Your task to perform on an android device: Open Google Maps Image 0: 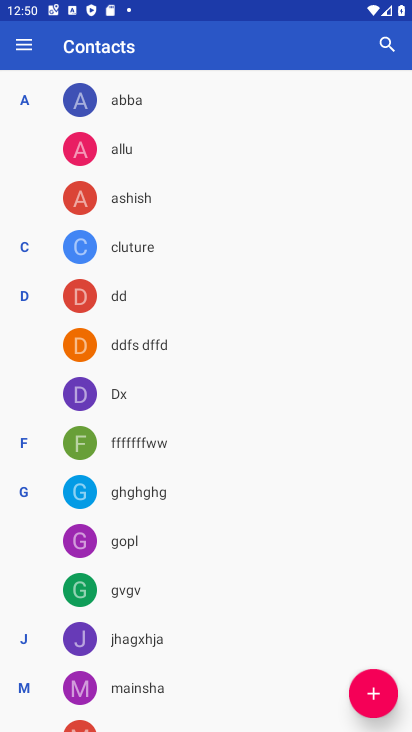
Step 0: press home button
Your task to perform on an android device: Open Google Maps Image 1: 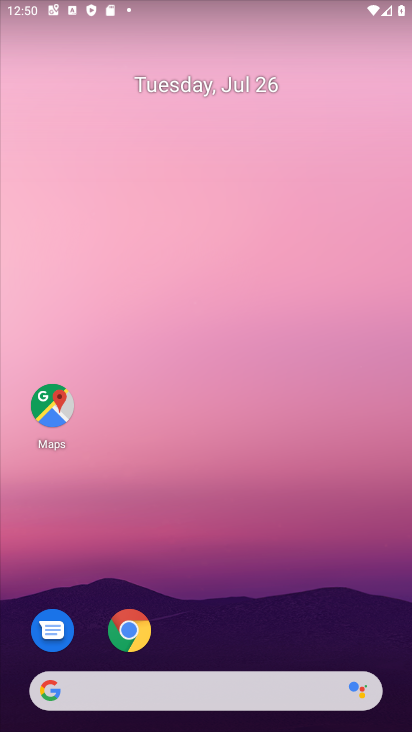
Step 1: click (54, 401)
Your task to perform on an android device: Open Google Maps Image 2: 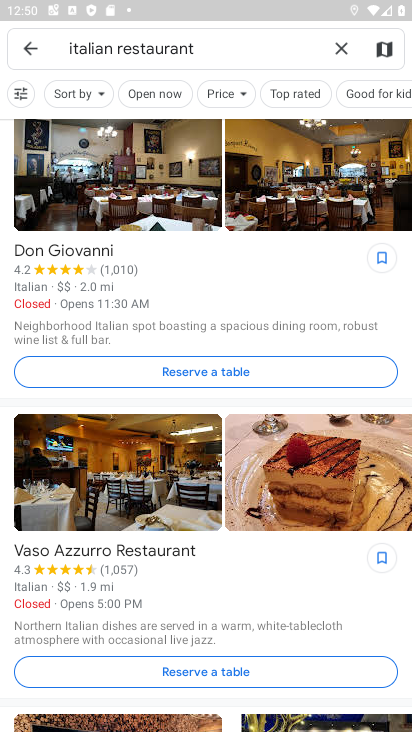
Step 2: click (337, 46)
Your task to perform on an android device: Open Google Maps Image 3: 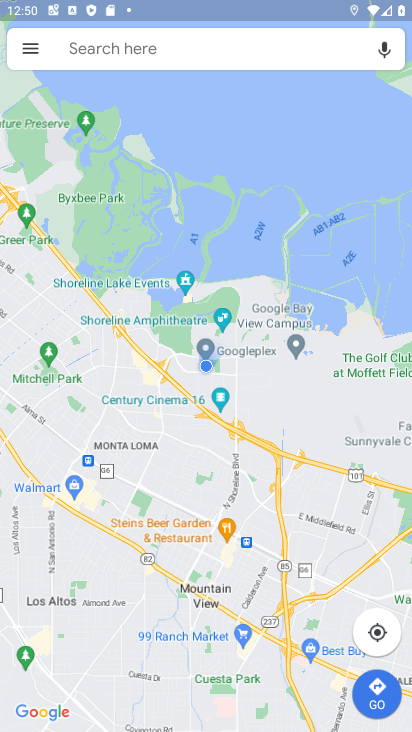
Step 3: task complete